Your task to perform on an android device: star an email in the gmail app Image 0: 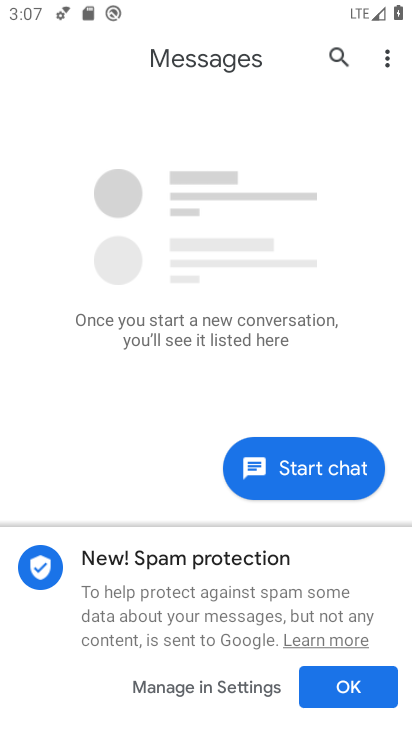
Step 0: press home button
Your task to perform on an android device: star an email in the gmail app Image 1: 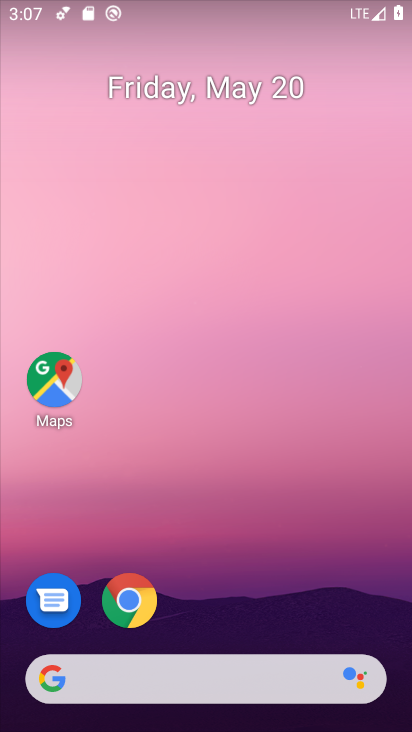
Step 1: drag from (347, 604) to (346, 157)
Your task to perform on an android device: star an email in the gmail app Image 2: 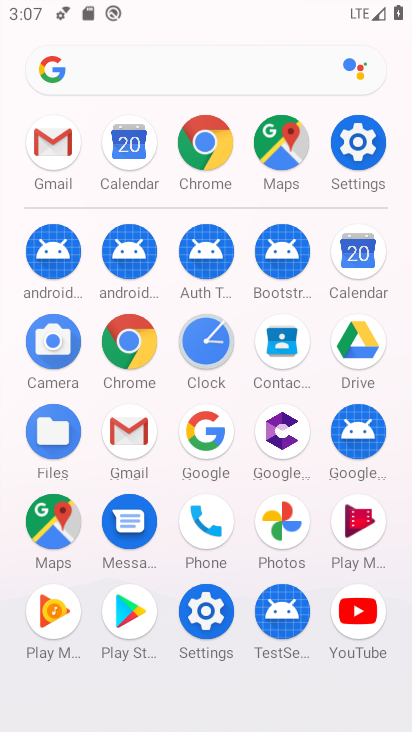
Step 2: click (128, 423)
Your task to perform on an android device: star an email in the gmail app Image 3: 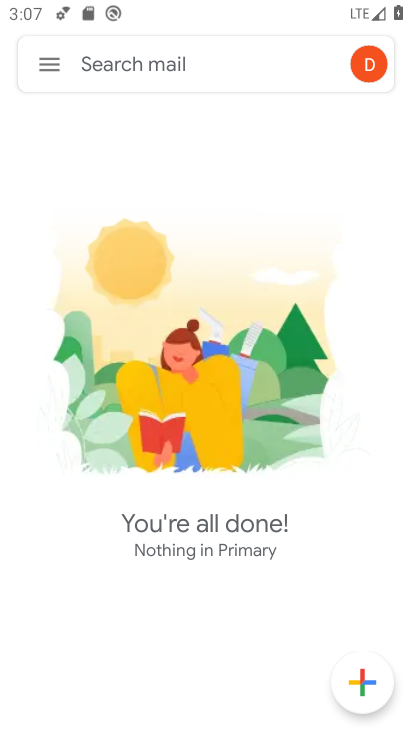
Step 3: click (51, 67)
Your task to perform on an android device: star an email in the gmail app Image 4: 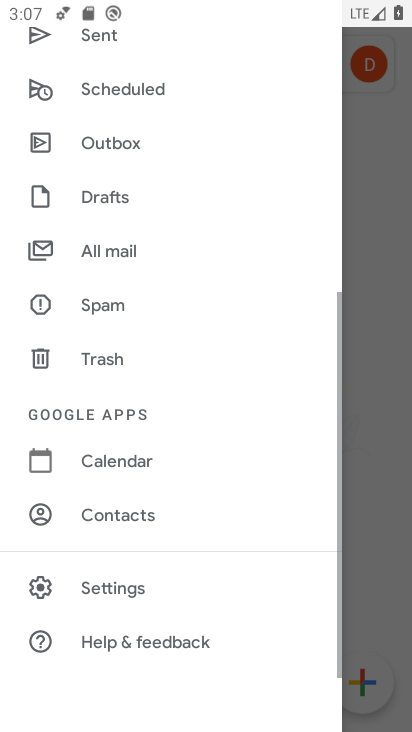
Step 4: drag from (223, 468) to (231, 284)
Your task to perform on an android device: star an email in the gmail app Image 5: 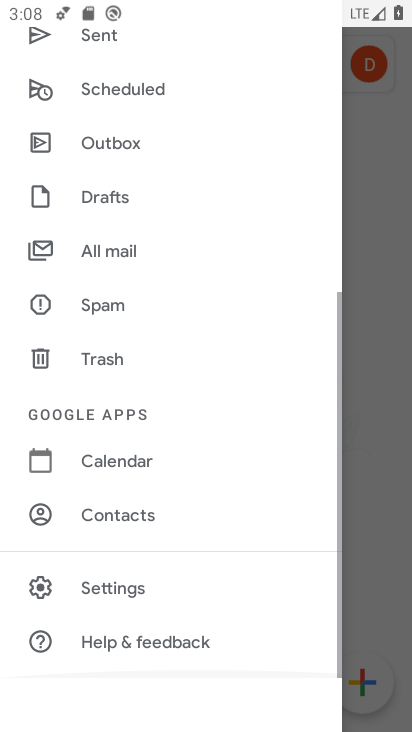
Step 5: drag from (238, 231) to (233, 482)
Your task to perform on an android device: star an email in the gmail app Image 6: 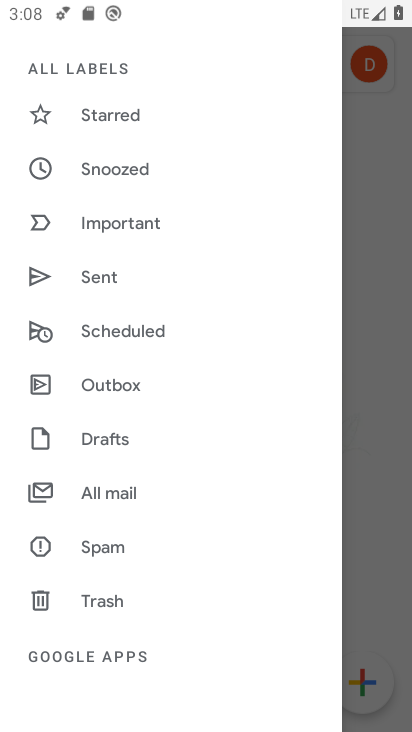
Step 6: drag from (243, 252) to (263, 506)
Your task to perform on an android device: star an email in the gmail app Image 7: 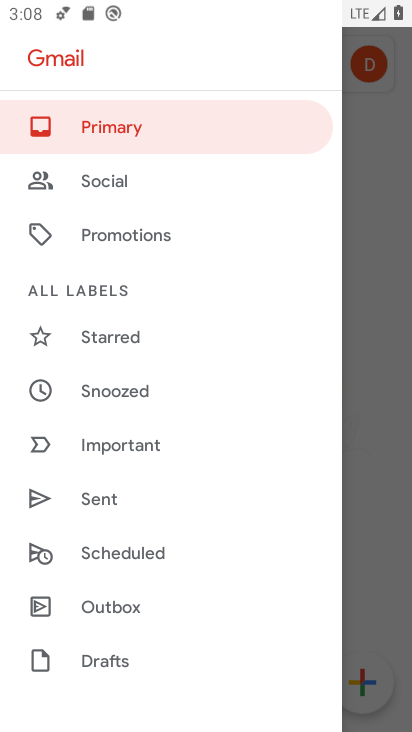
Step 7: drag from (268, 271) to (266, 401)
Your task to perform on an android device: star an email in the gmail app Image 8: 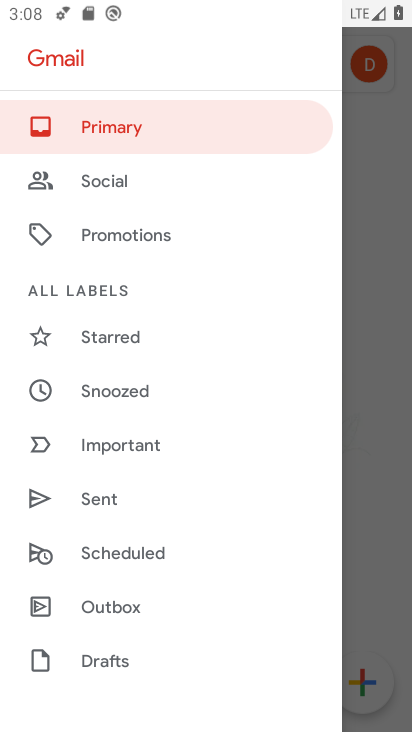
Step 8: click (164, 131)
Your task to perform on an android device: star an email in the gmail app Image 9: 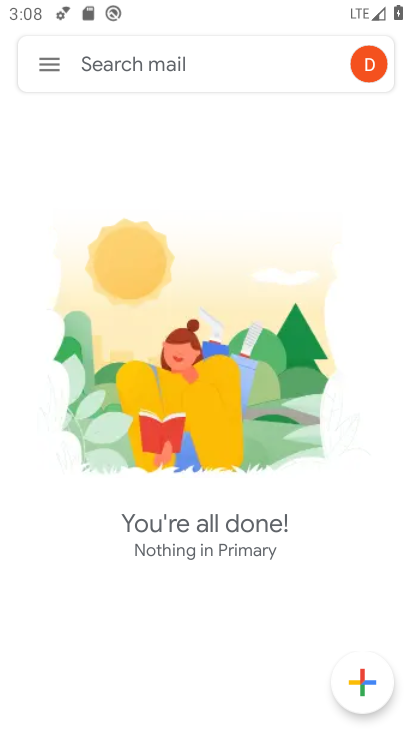
Step 9: task complete